Your task to perform on an android device: Open Google Chrome Image 0: 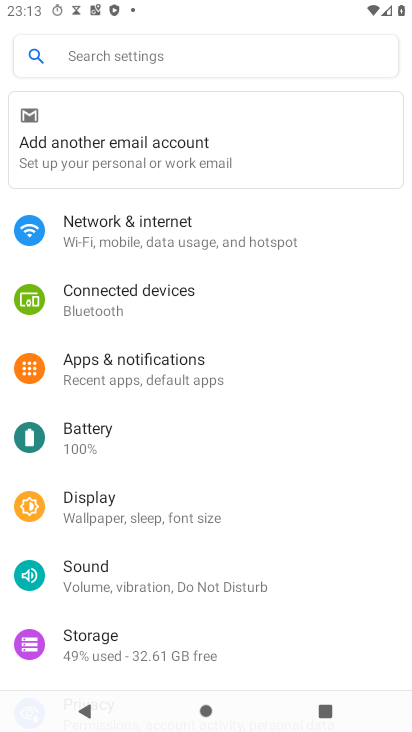
Step 0: press home button
Your task to perform on an android device: Open Google Chrome Image 1: 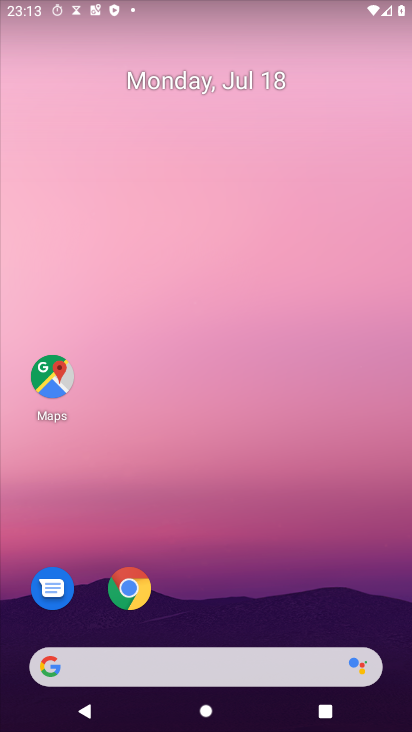
Step 1: click (123, 591)
Your task to perform on an android device: Open Google Chrome Image 2: 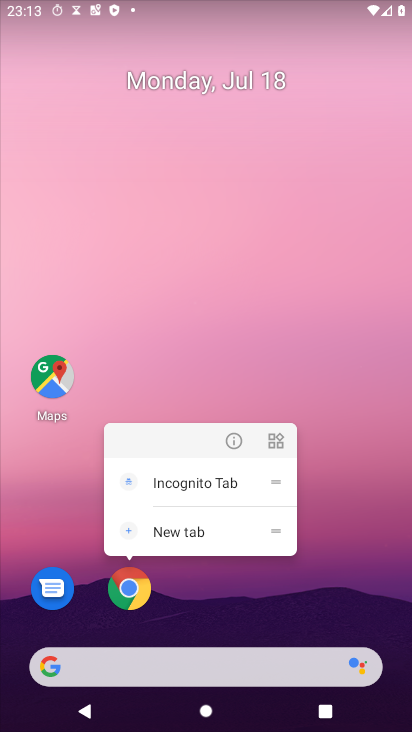
Step 2: click (126, 593)
Your task to perform on an android device: Open Google Chrome Image 3: 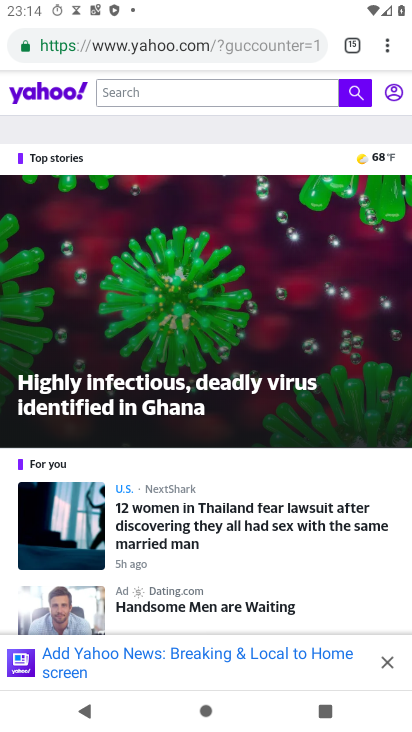
Step 3: task complete